Your task to perform on an android device: Search for the best rated soccer ball on AliExpress Image 0: 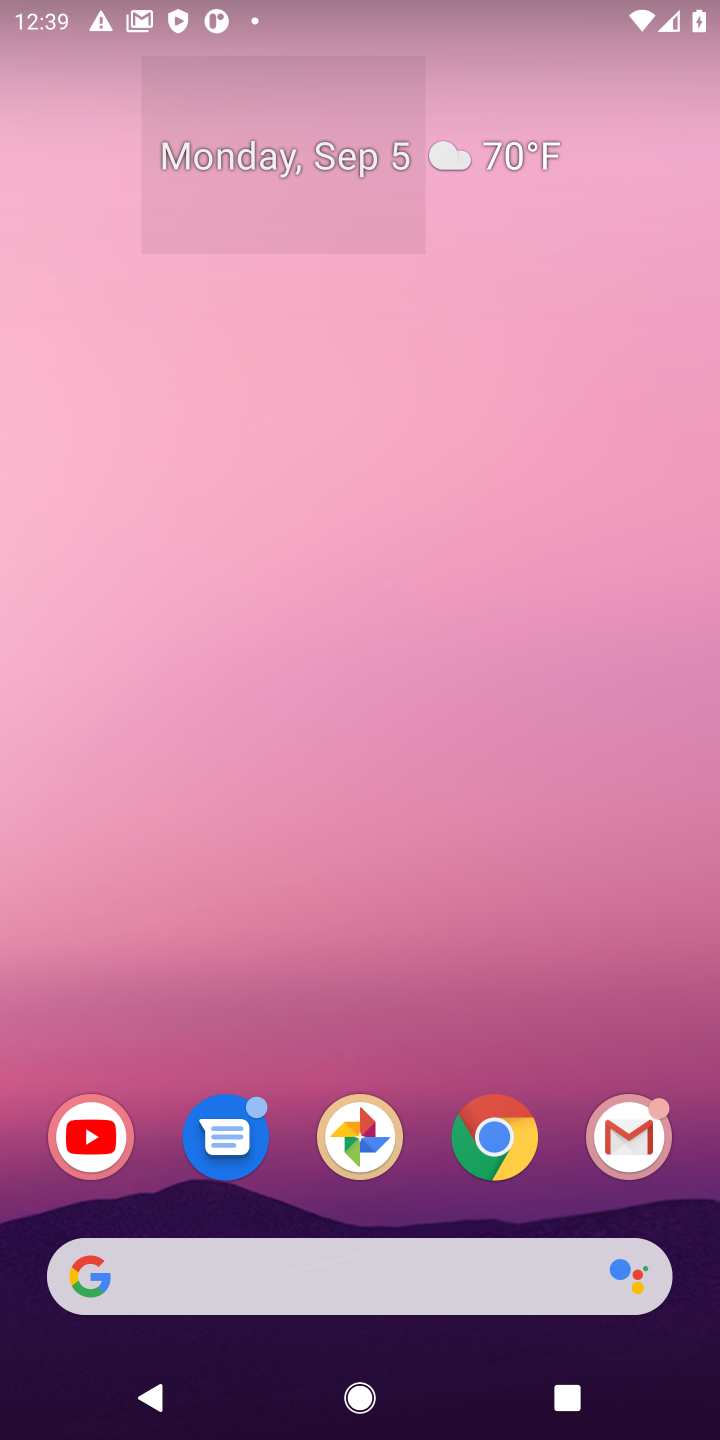
Step 0: click (455, 1140)
Your task to perform on an android device: Search for the best rated soccer ball on AliExpress Image 1: 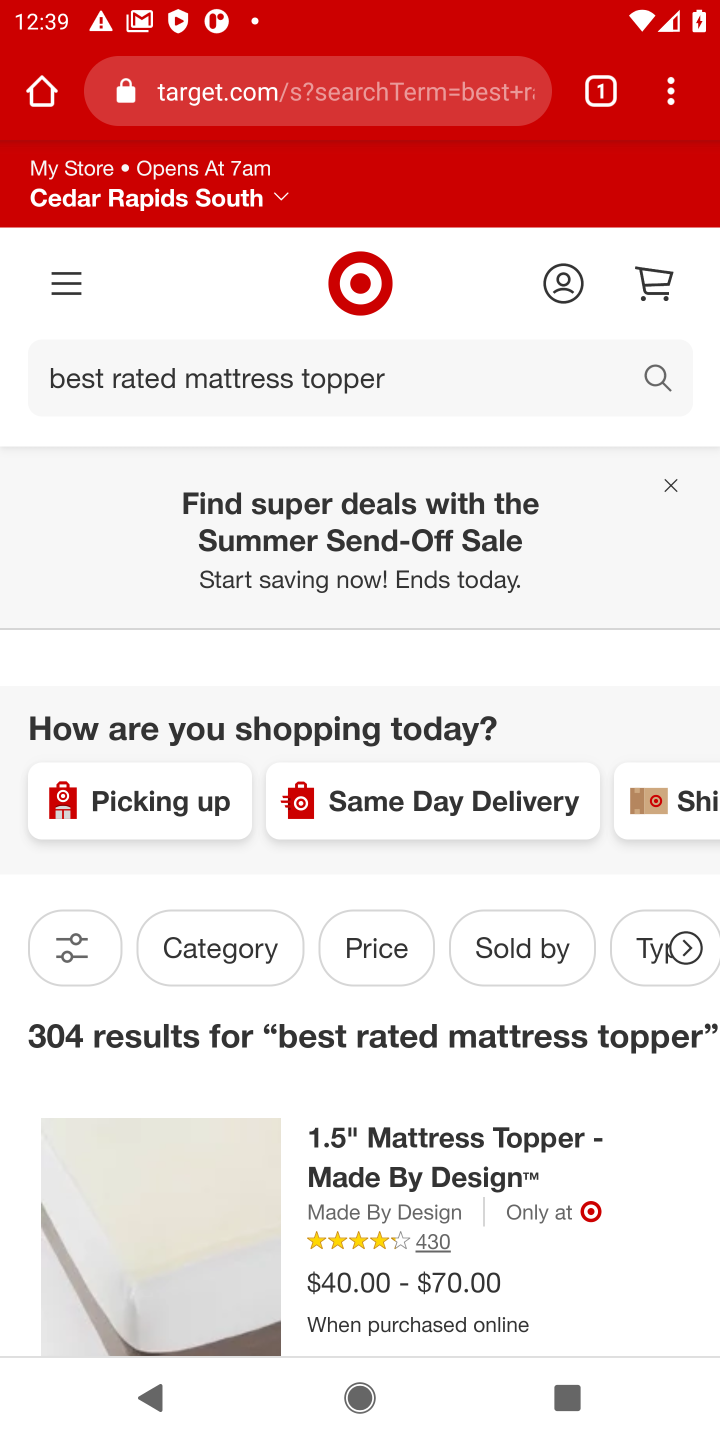
Step 1: click (447, 81)
Your task to perform on an android device: Search for the best rated soccer ball on AliExpress Image 2: 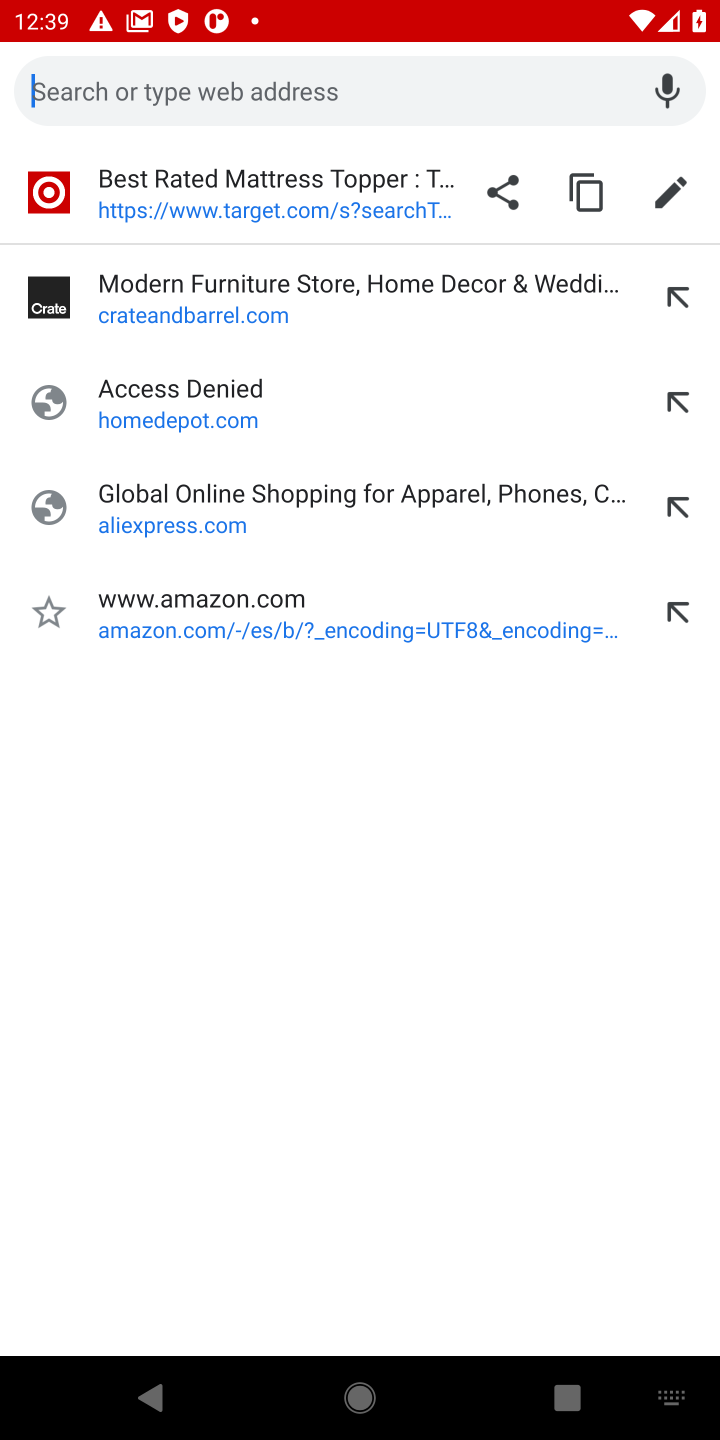
Step 2: type "aliexpress"
Your task to perform on an android device: Search for the best rated soccer ball on AliExpress Image 3: 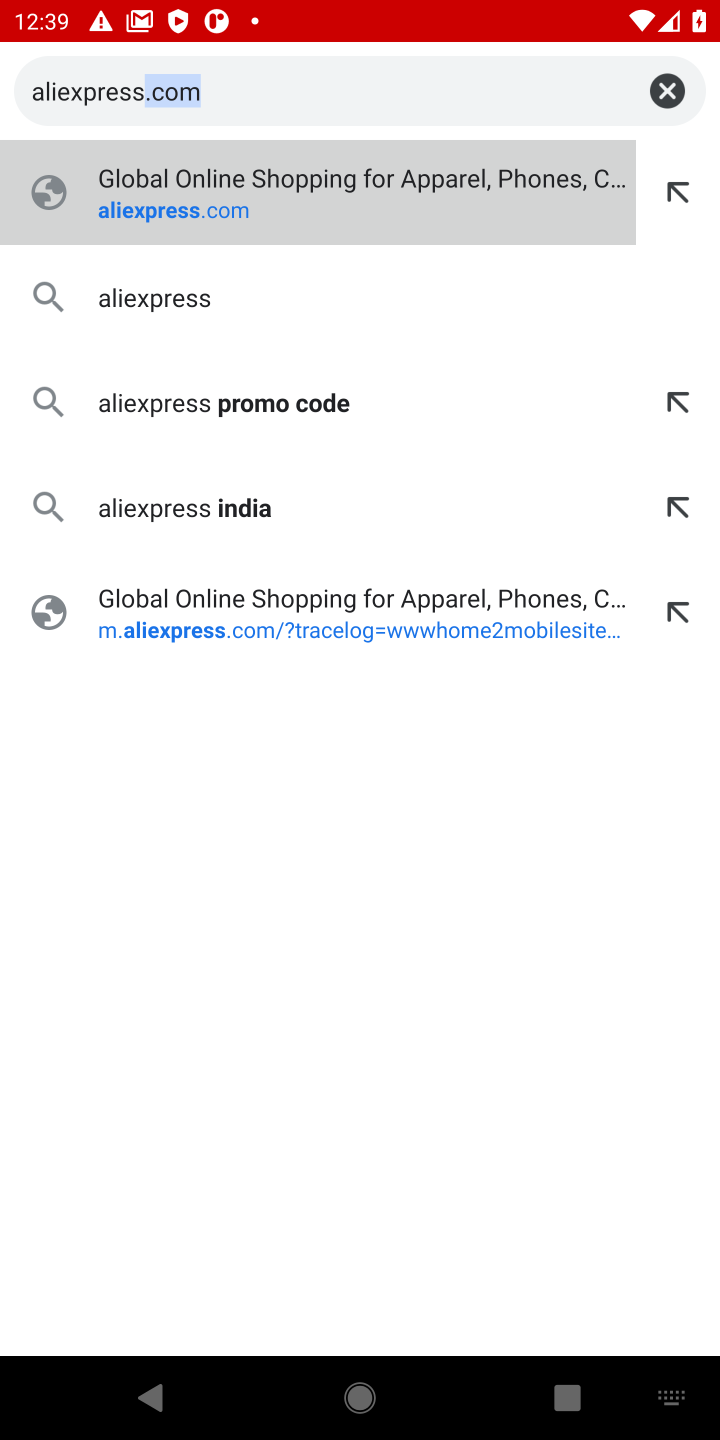
Step 3: click (260, 201)
Your task to perform on an android device: Search for the best rated soccer ball on AliExpress Image 4: 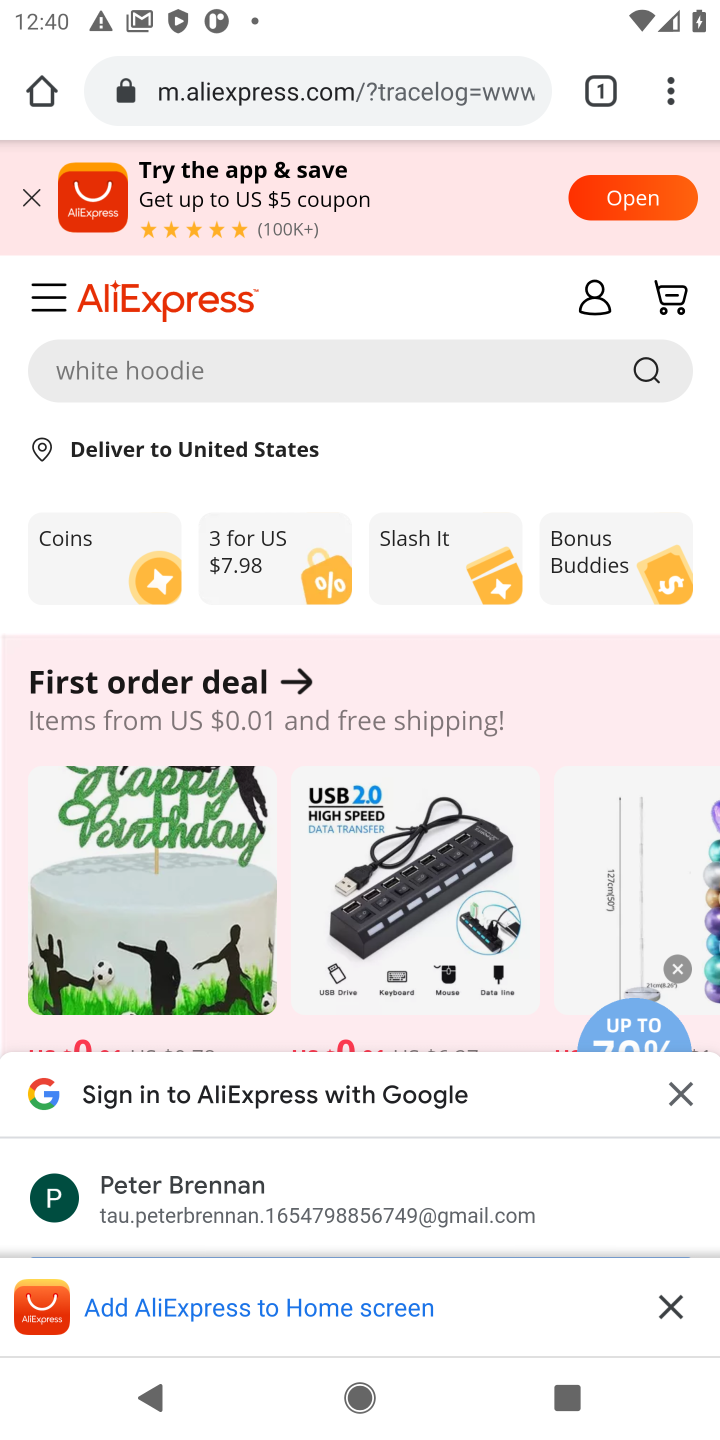
Step 4: click (334, 393)
Your task to perform on an android device: Search for the best rated soccer ball on AliExpress Image 5: 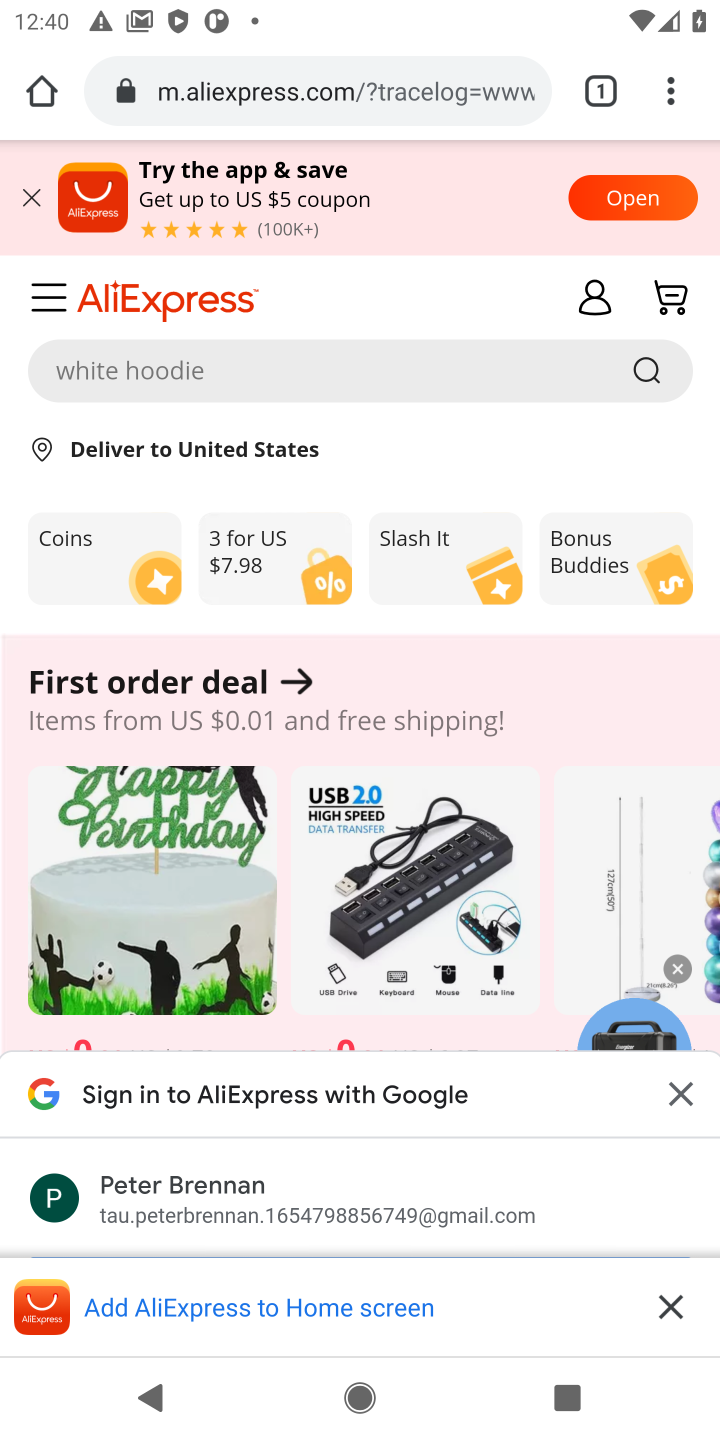
Step 5: click (476, 391)
Your task to perform on an android device: Search for the best rated soccer ball on AliExpress Image 6: 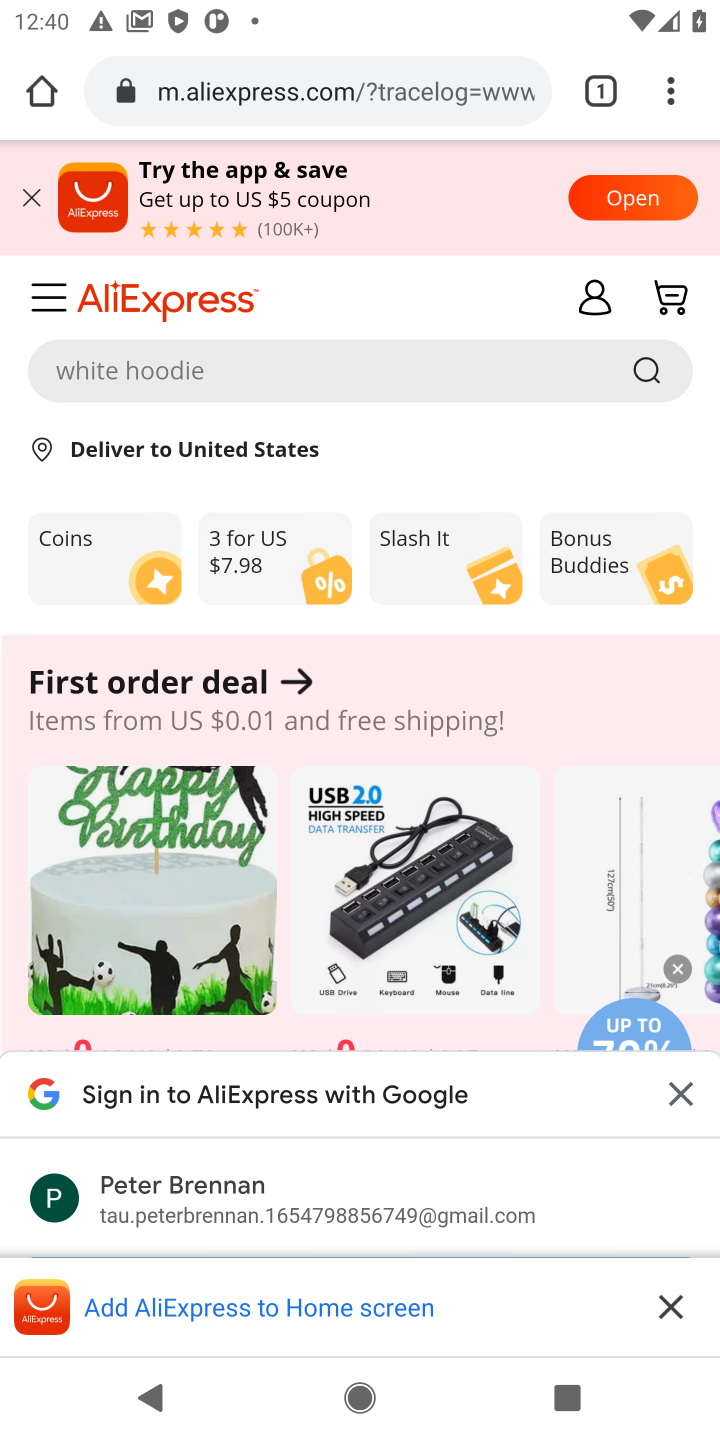
Step 6: click (356, 365)
Your task to perform on an android device: Search for the best rated soccer ball on AliExpress Image 7: 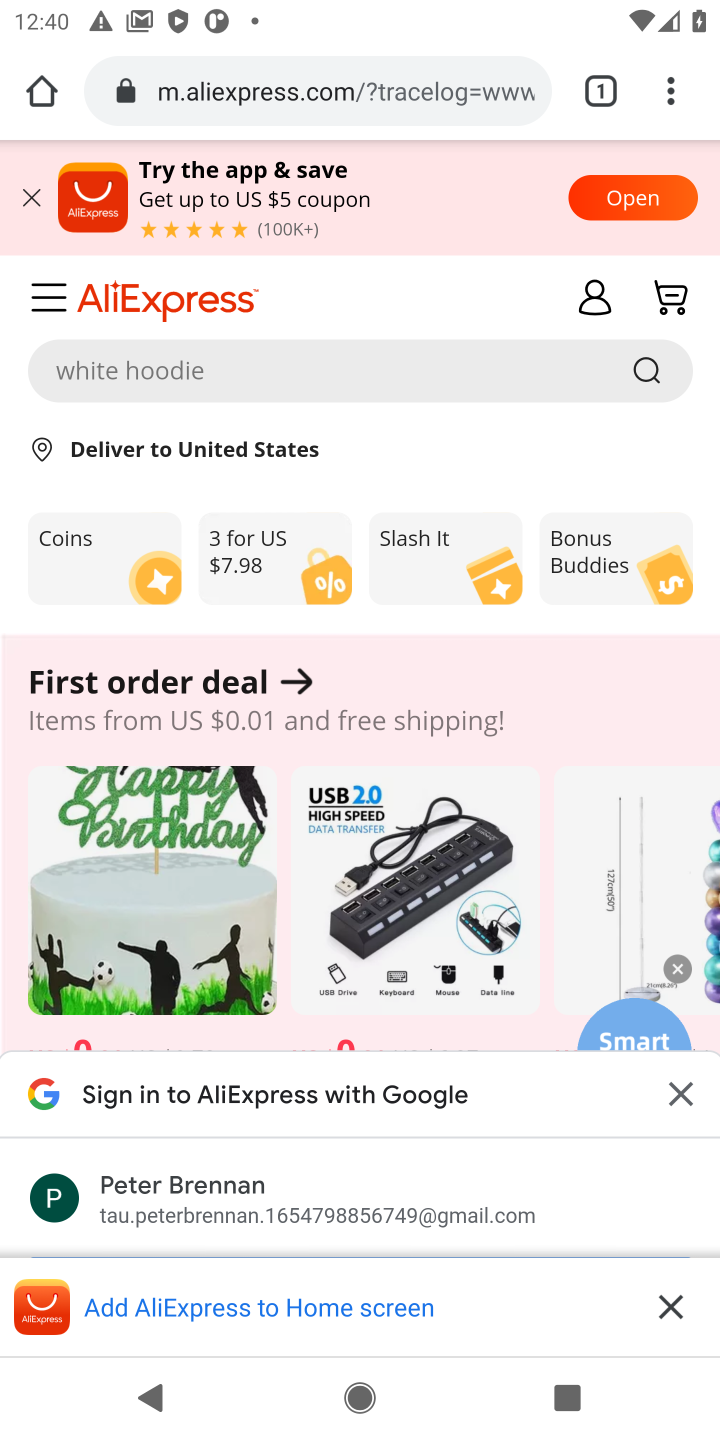
Step 7: click (356, 365)
Your task to perform on an android device: Search for the best rated soccer ball on AliExpress Image 8: 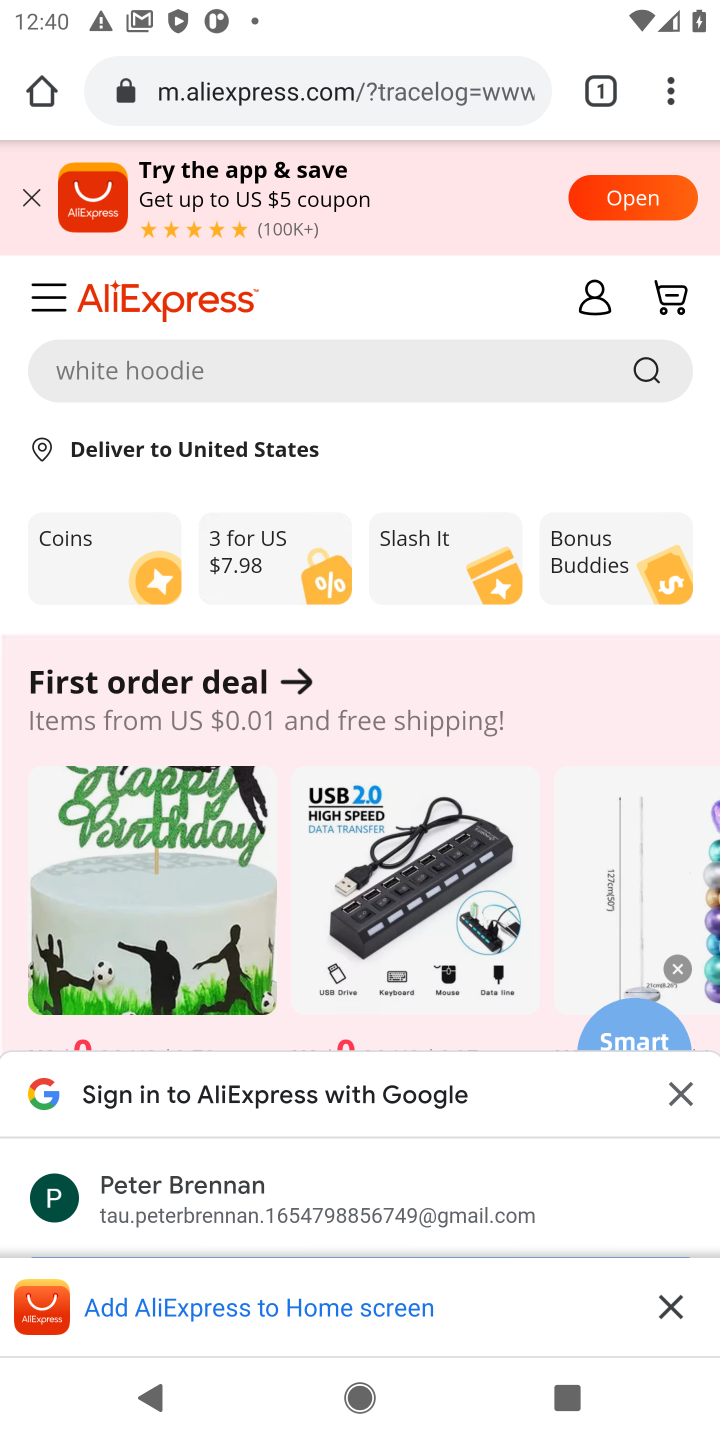
Step 8: click (162, 359)
Your task to perform on an android device: Search for the best rated soccer ball on AliExpress Image 9: 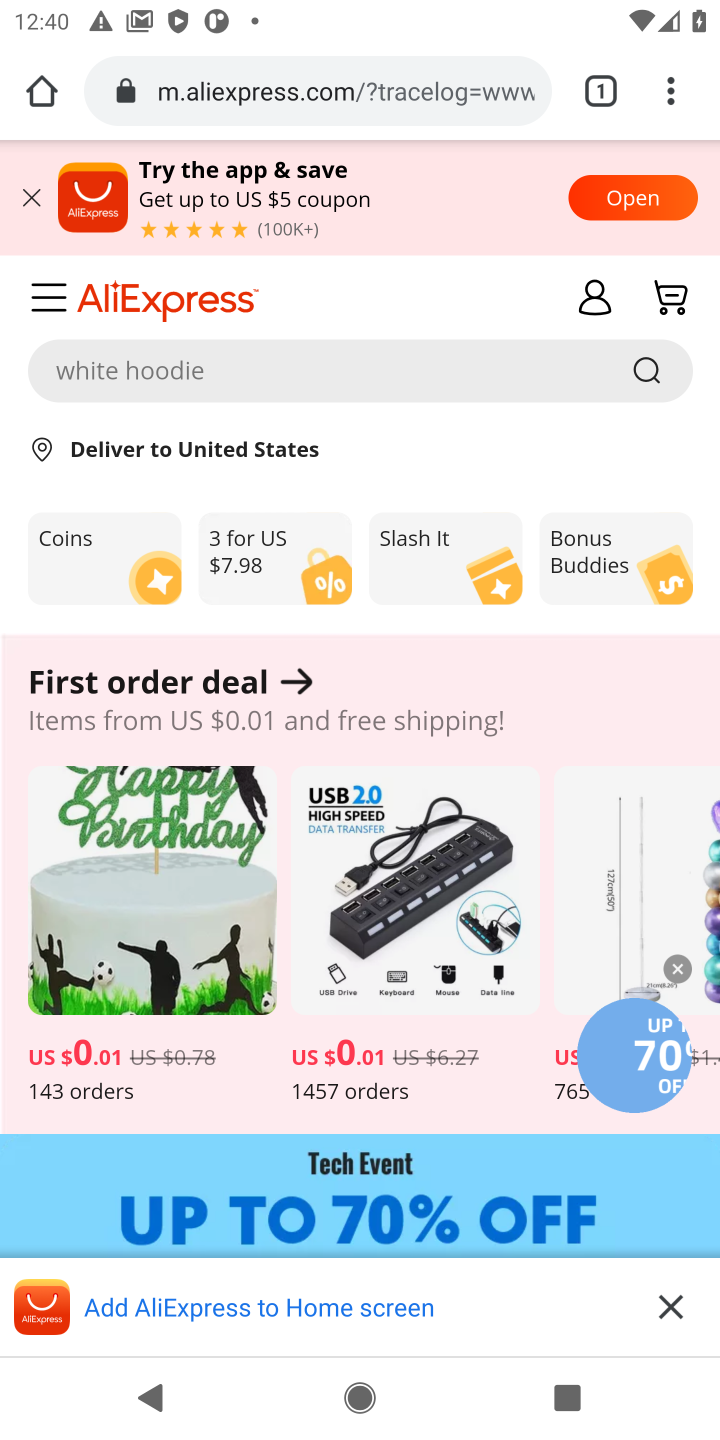
Step 9: click (162, 359)
Your task to perform on an android device: Search for the best rated soccer ball on AliExpress Image 10: 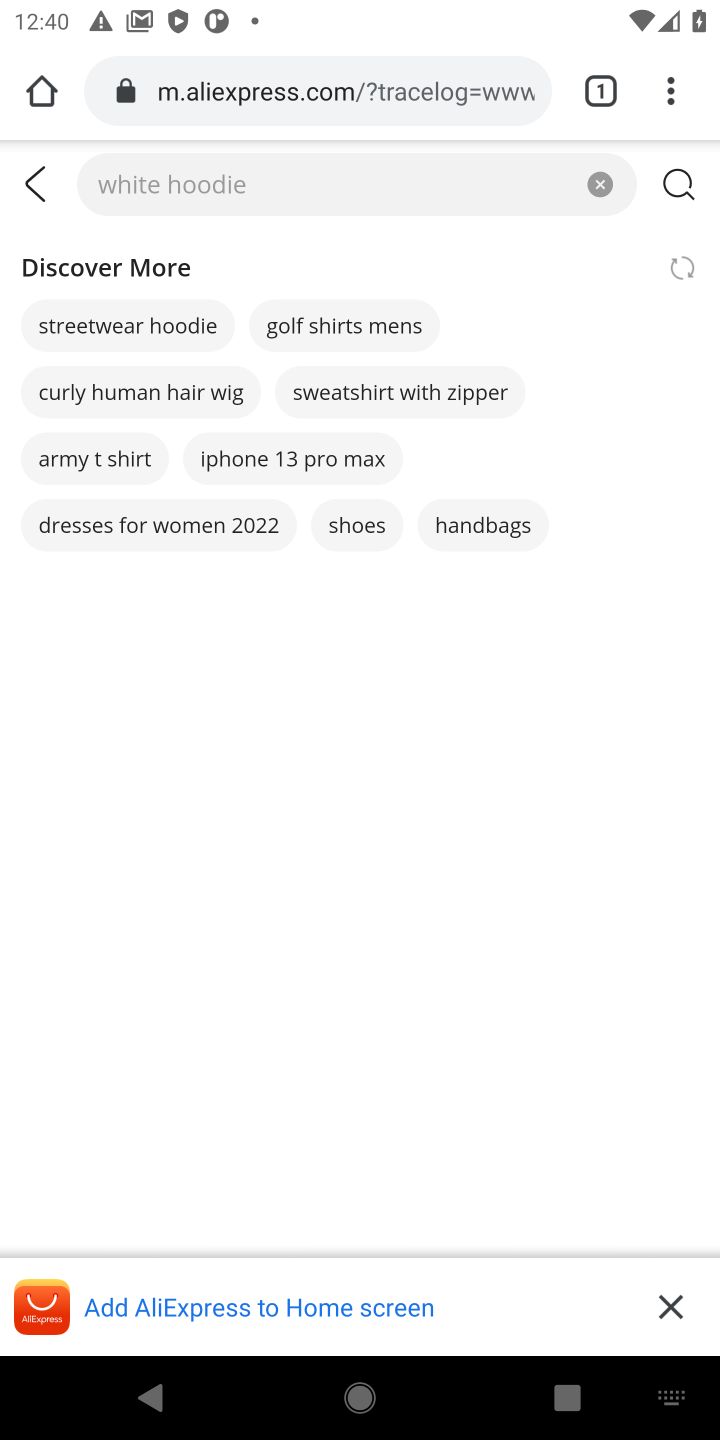
Step 10: click (143, 158)
Your task to perform on an android device: Search for the best rated soccer ball on AliExpress Image 11: 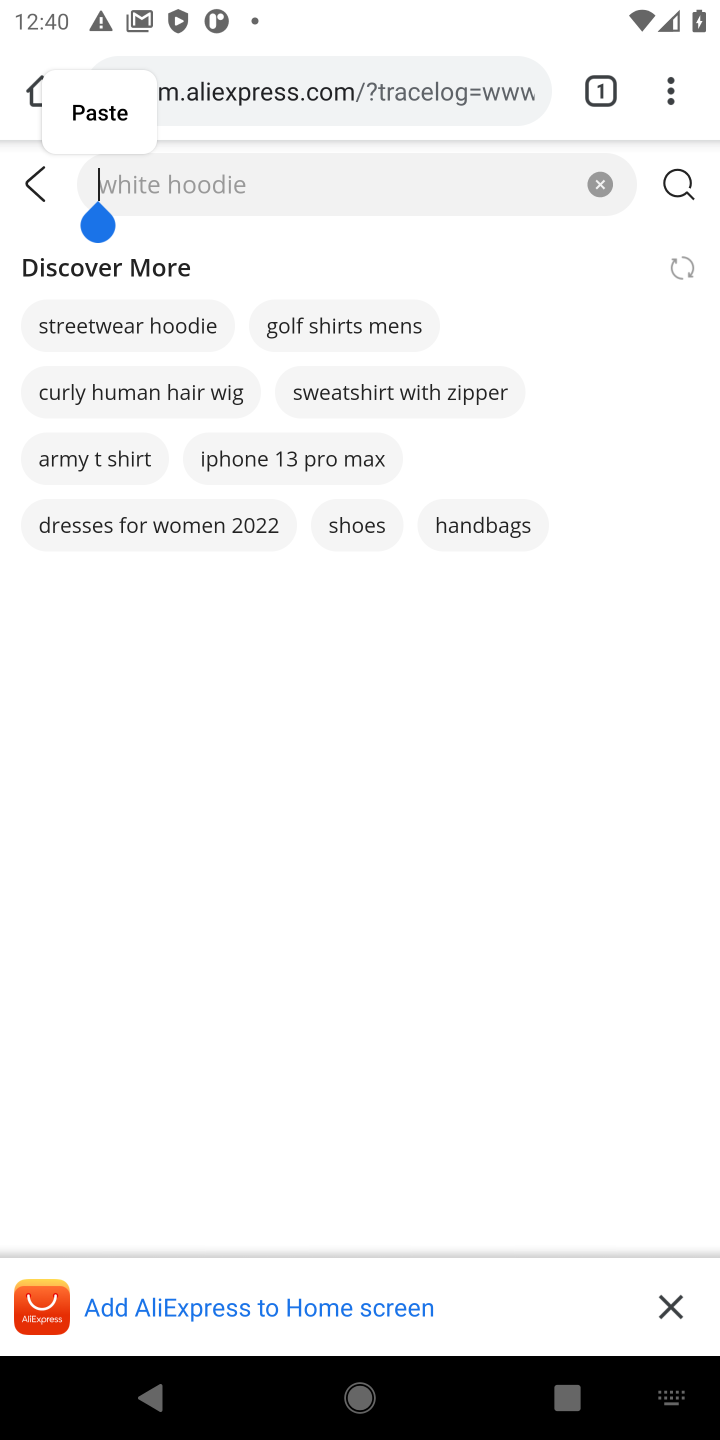
Step 11: type "best rated soccer"
Your task to perform on an android device: Search for the best rated soccer ball on AliExpress Image 12: 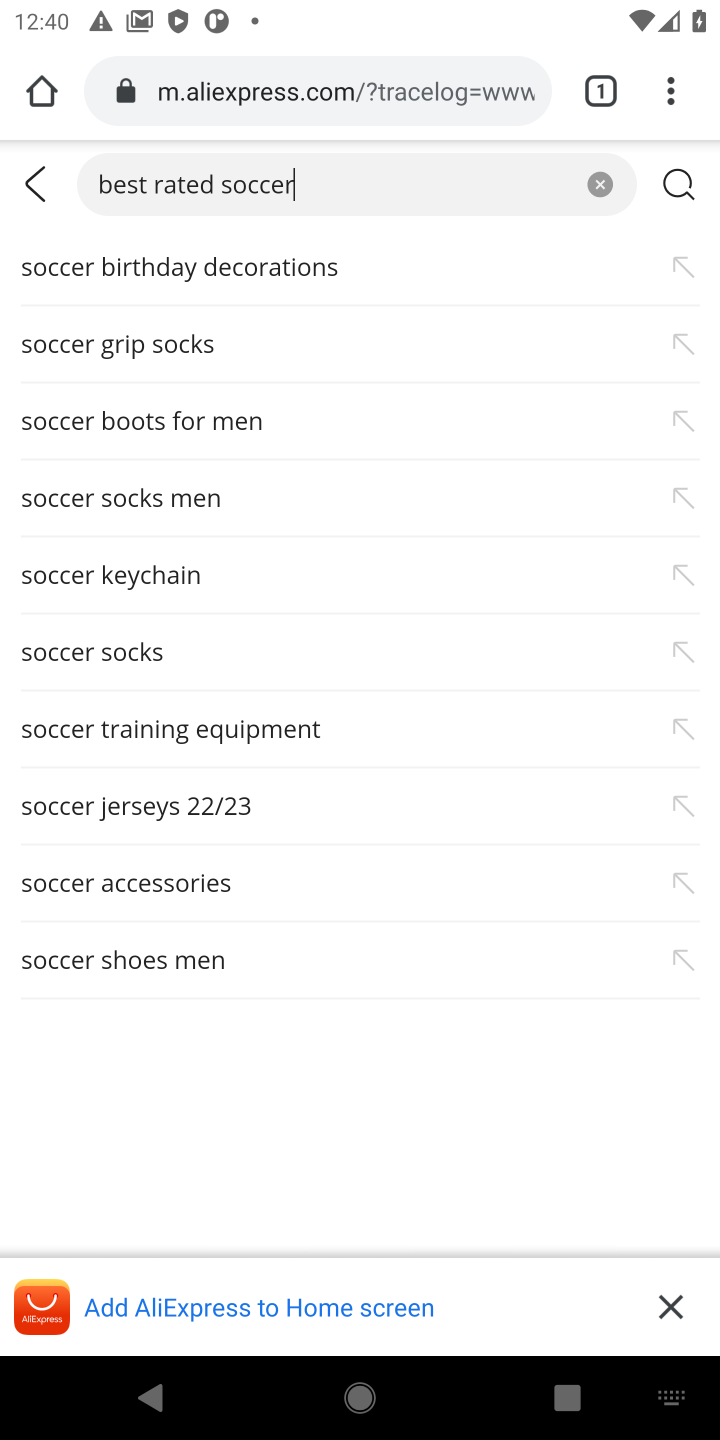
Step 12: press enter
Your task to perform on an android device: Search for the best rated soccer ball on AliExpress Image 13: 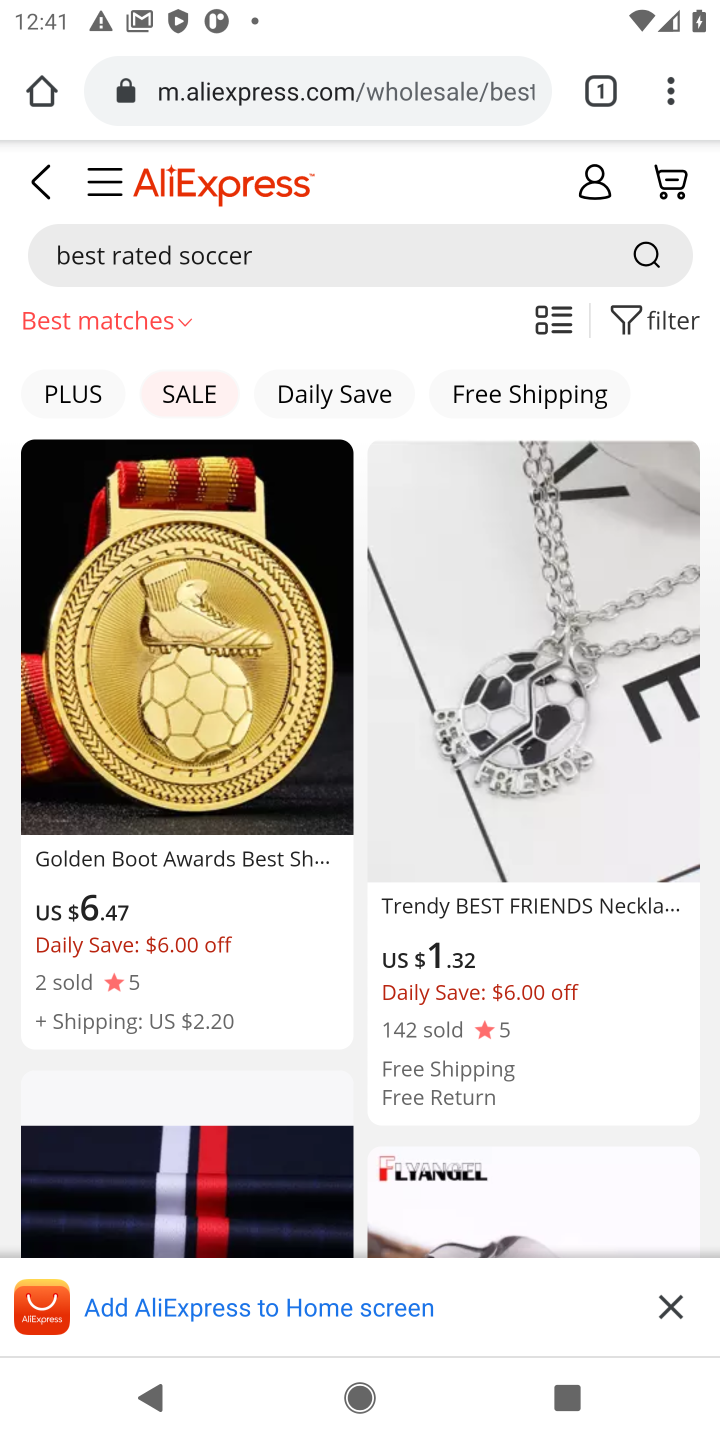
Step 13: task complete